Your task to perform on an android device: toggle airplane mode Image 0: 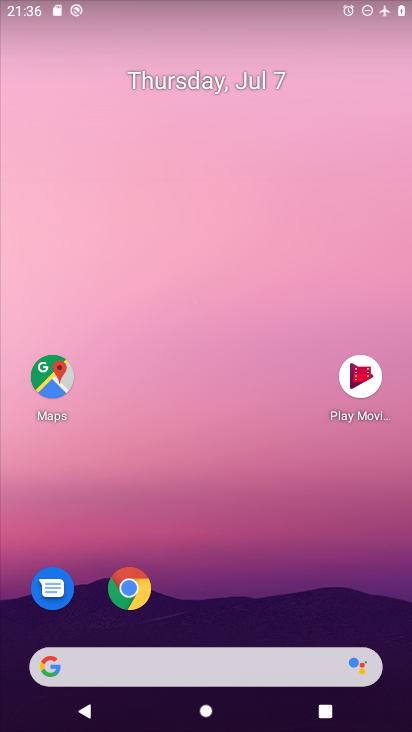
Step 0: drag from (230, 646) to (180, 305)
Your task to perform on an android device: toggle airplane mode Image 1: 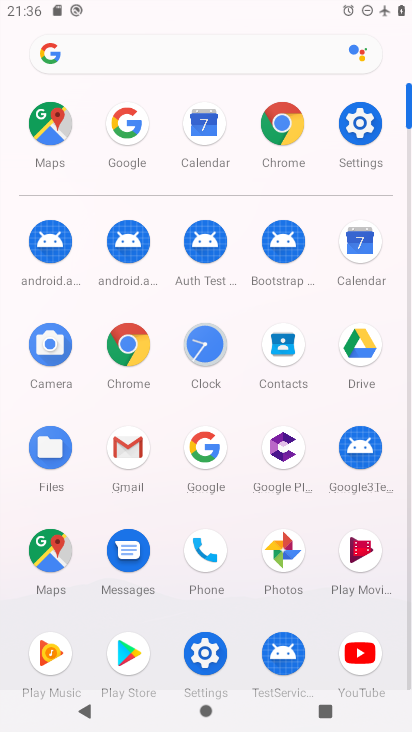
Step 1: click (371, 119)
Your task to perform on an android device: toggle airplane mode Image 2: 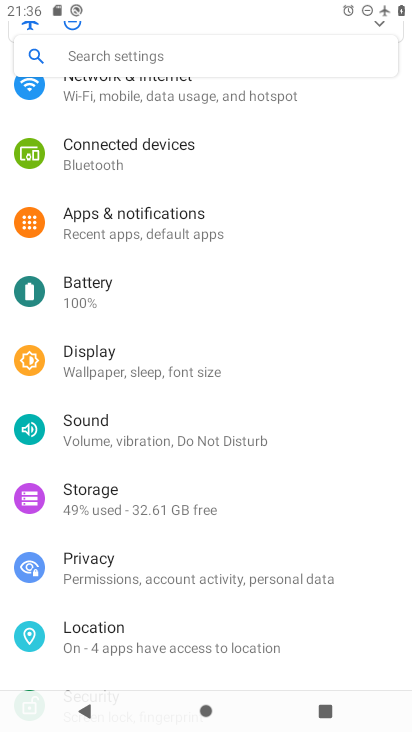
Step 2: drag from (146, 162) to (136, 527)
Your task to perform on an android device: toggle airplane mode Image 3: 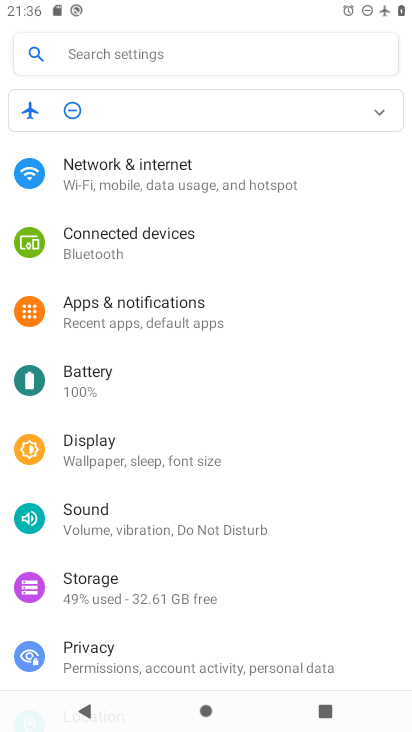
Step 3: click (121, 181)
Your task to perform on an android device: toggle airplane mode Image 4: 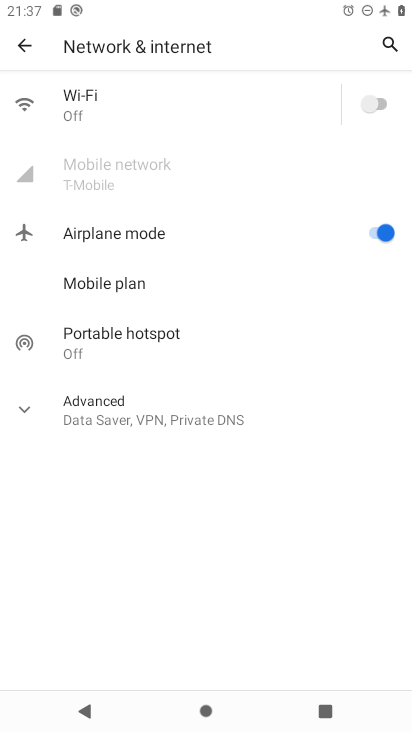
Step 4: click (365, 228)
Your task to perform on an android device: toggle airplane mode Image 5: 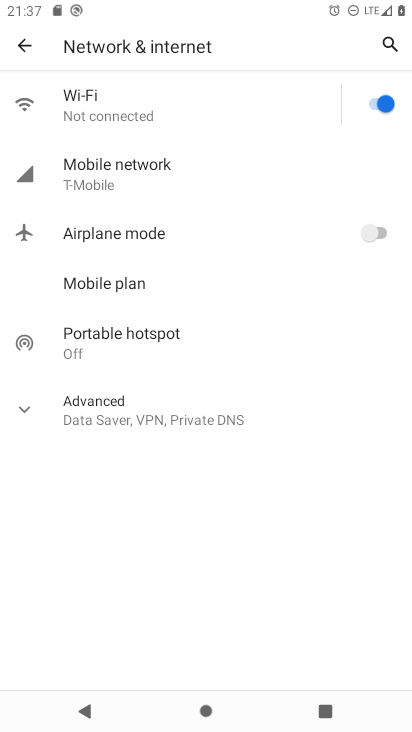
Step 5: task complete